Your task to perform on an android device: change timer sound Image 0: 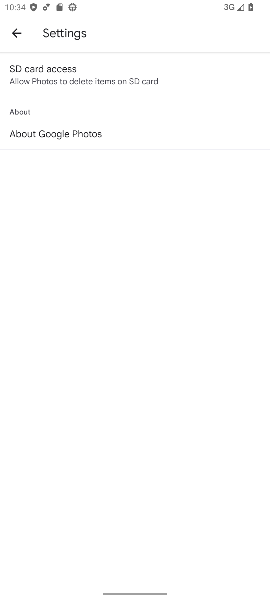
Step 0: press home button
Your task to perform on an android device: change timer sound Image 1: 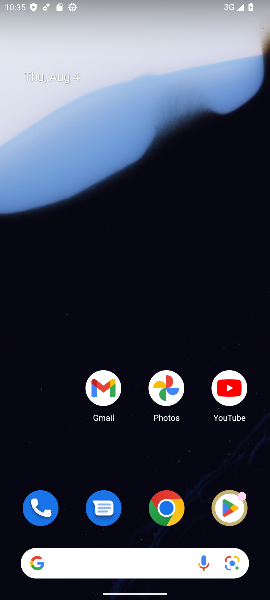
Step 1: drag from (94, 350) to (208, 149)
Your task to perform on an android device: change timer sound Image 2: 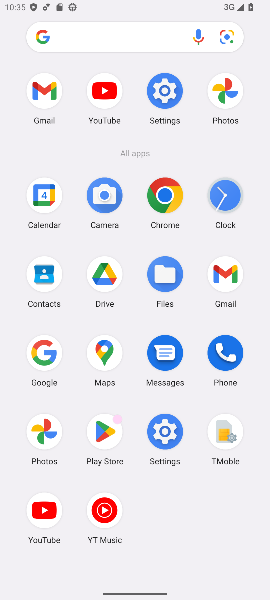
Step 2: click (225, 207)
Your task to perform on an android device: change timer sound Image 3: 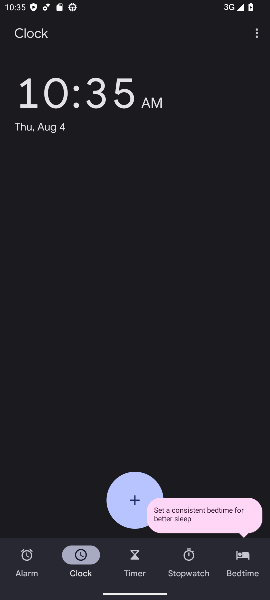
Step 3: click (261, 32)
Your task to perform on an android device: change timer sound Image 4: 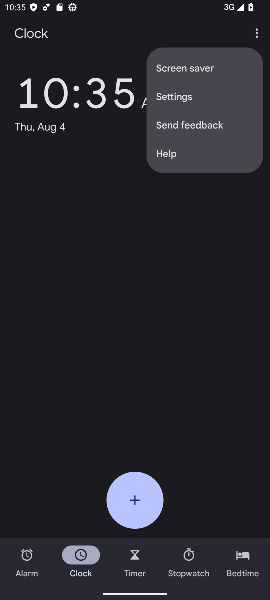
Step 4: click (226, 97)
Your task to perform on an android device: change timer sound Image 5: 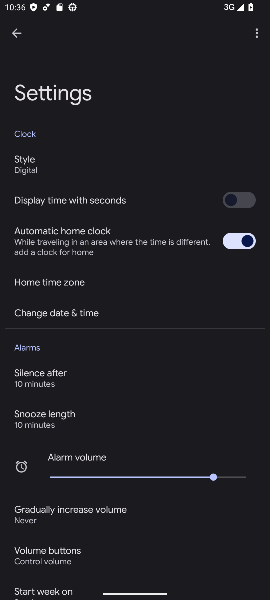
Step 5: drag from (4, 383) to (176, 8)
Your task to perform on an android device: change timer sound Image 6: 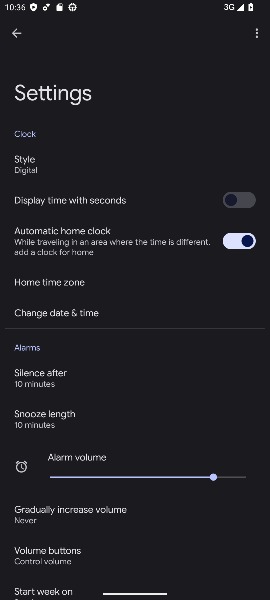
Step 6: drag from (31, 432) to (176, 73)
Your task to perform on an android device: change timer sound Image 7: 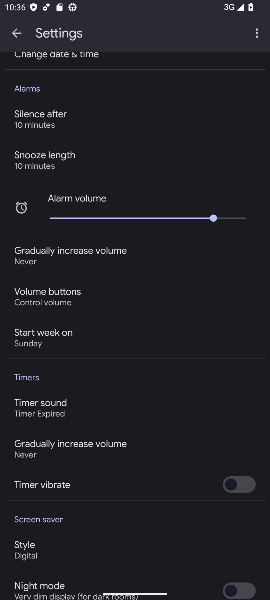
Step 7: click (61, 415)
Your task to perform on an android device: change timer sound Image 8: 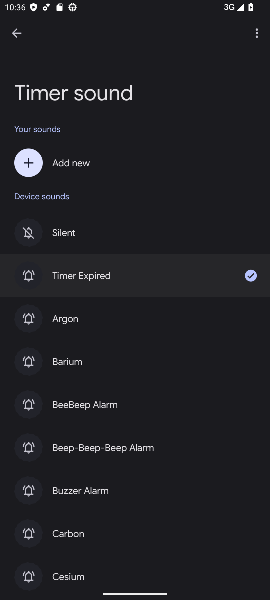
Step 8: click (77, 322)
Your task to perform on an android device: change timer sound Image 9: 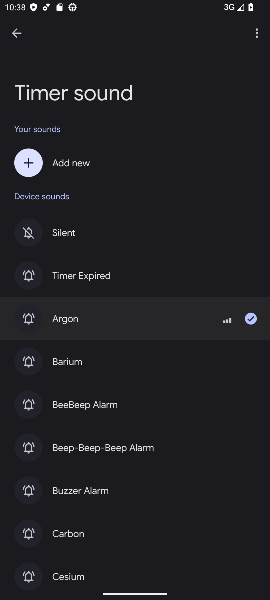
Step 9: task complete